Your task to perform on an android device: toggle pop-ups in chrome Image 0: 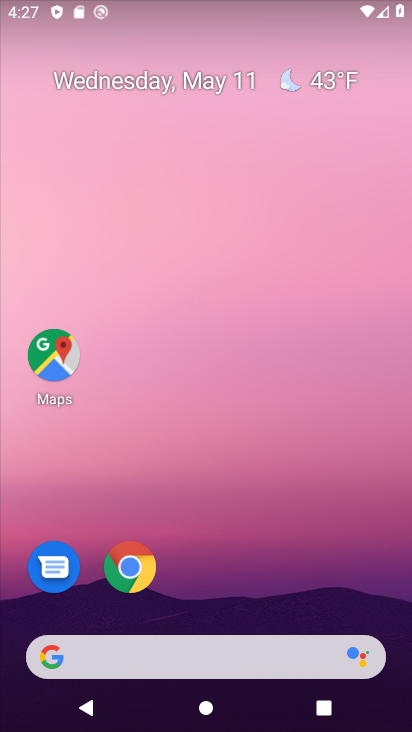
Step 0: click (138, 568)
Your task to perform on an android device: toggle pop-ups in chrome Image 1: 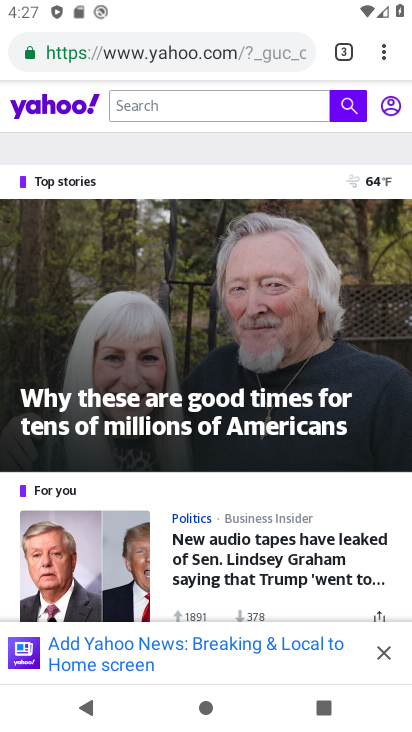
Step 1: click (386, 47)
Your task to perform on an android device: toggle pop-ups in chrome Image 2: 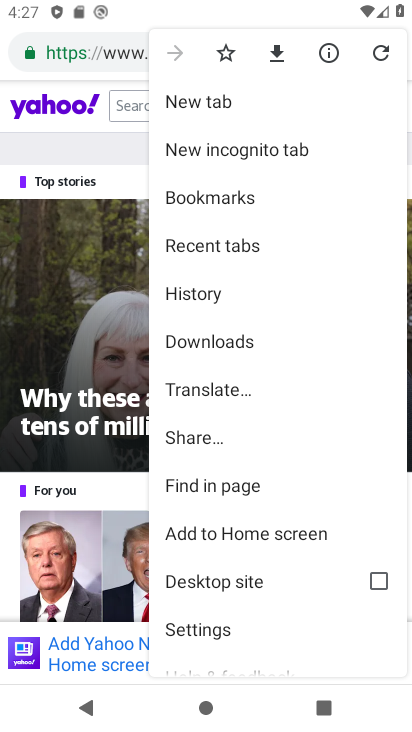
Step 2: drag from (251, 591) to (283, 151)
Your task to perform on an android device: toggle pop-ups in chrome Image 3: 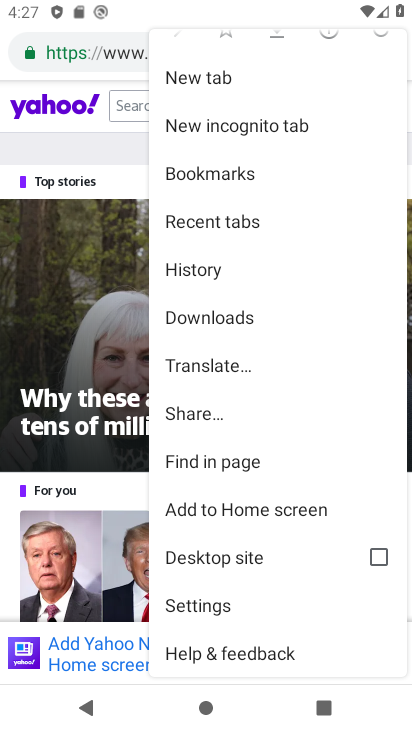
Step 3: click (218, 611)
Your task to perform on an android device: toggle pop-ups in chrome Image 4: 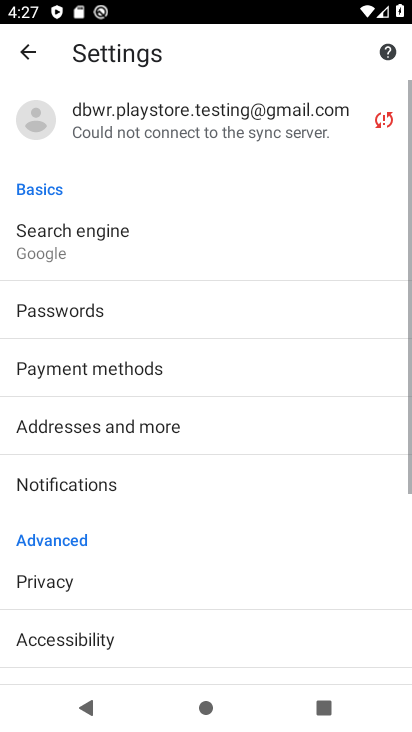
Step 4: drag from (216, 611) to (220, 158)
Your task to perform on an android device: toggle pop-ups in chrome Image 5: 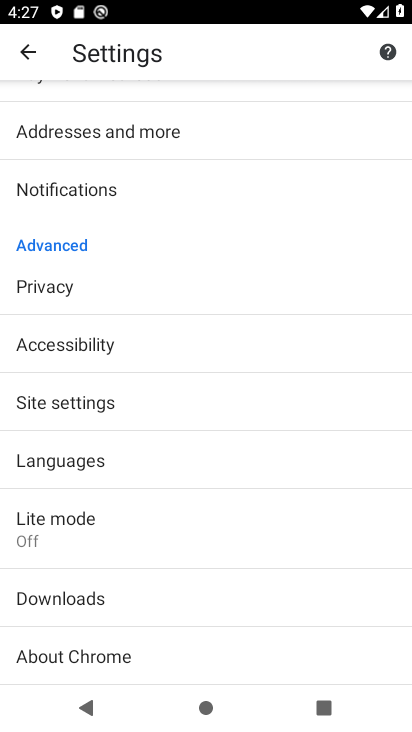
Step 5: click (112, 396)
Your task to perform on an android device: toggle pop-ups in chrome Image 6: 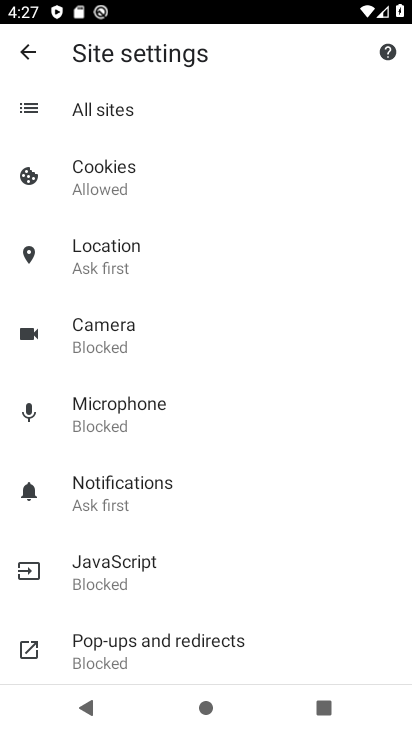
Step 6: drag from (176, 589) to (192, 249)
Your task to perform on an android device: toggle pop-ups in chrome Image 7: 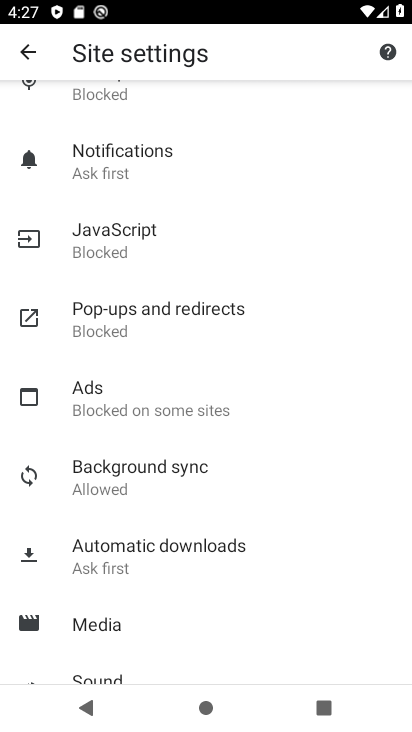
Step 7: drag from (360, 511) to (376, 157)
Your task to perform on an android device: toggle pop-ups in chrome Image 8: 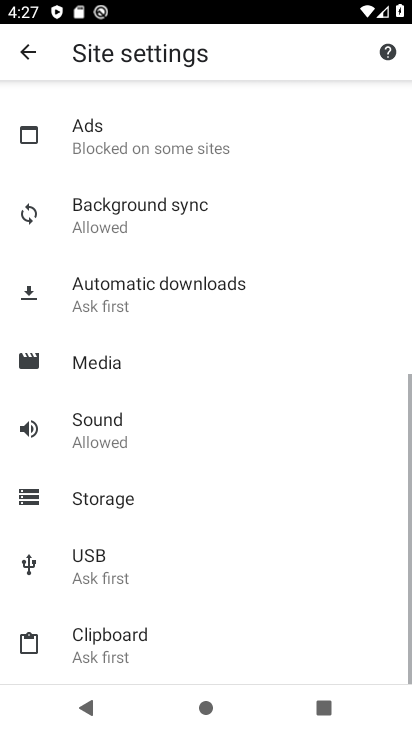
Step 8: drag from (367, 161) to (250, 730)
Your task to perform on an android device: toggle pop-ups in chrome Image 9: 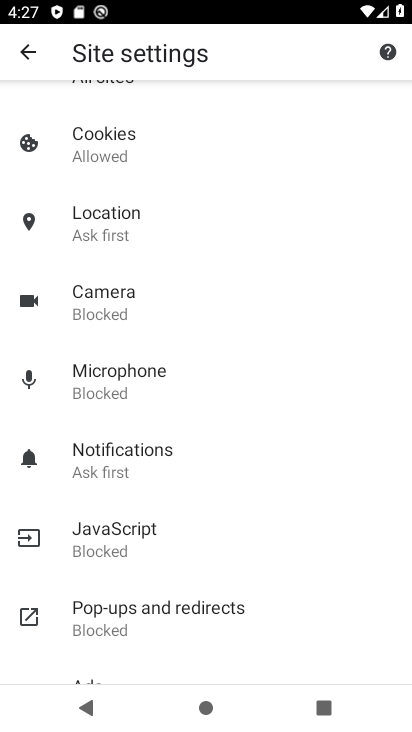
Step 9: click (151, 609)
Your task to perform on an android device: toggle pop-ups in chrome Image 10: 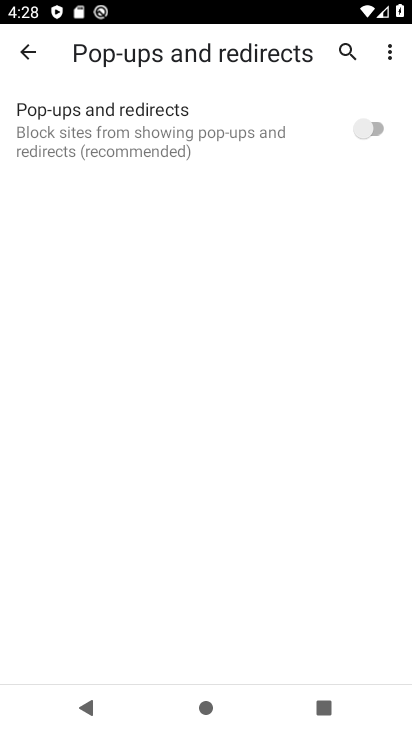
Step 10: click (361, 133)
Your task to perform on an android device: toggle pop-ups in chrome Image 11: 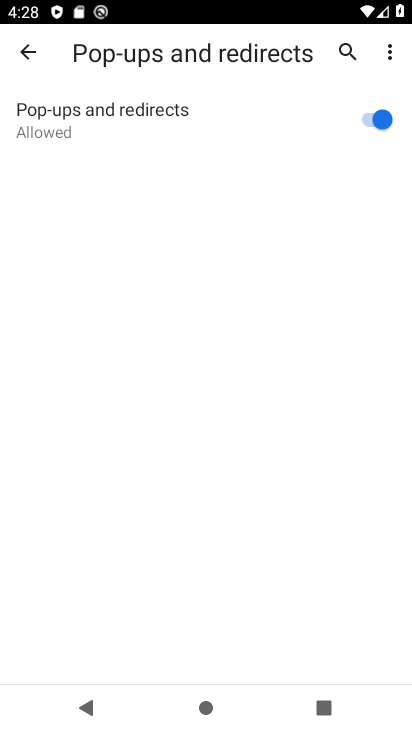
Step 11: task complete